Your task to perform on an android device: Open Google Maps and go to "Timeline" Image 0: 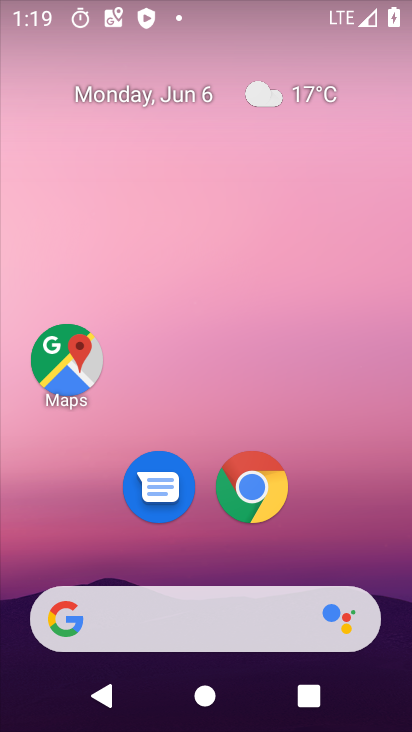
Step 0: click (84, 384)
Your task to perform on an android device: Open Google Maps and go to "Timeline" Image 1: 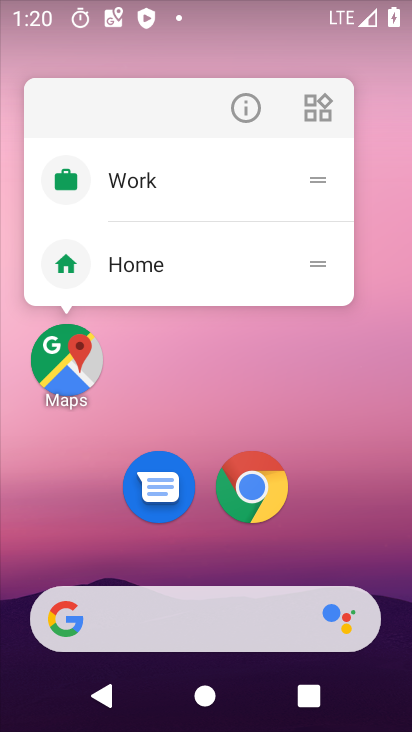
Step 1: click (56, 365)
Your task to perform on an android device: Open Google Maps and go to "Timeline" Image 2: 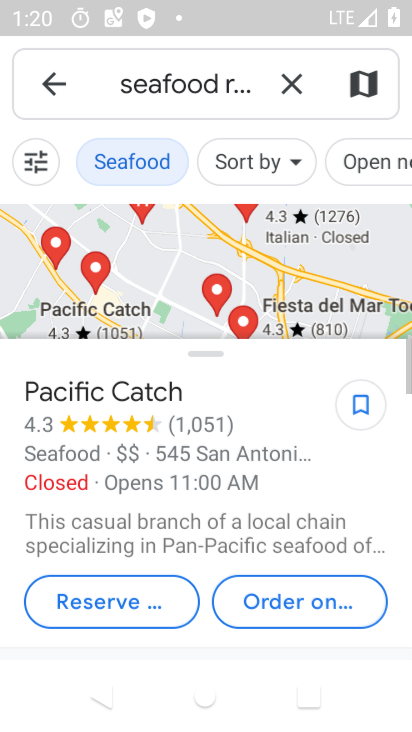
Step 2: click (52, 76)
Your task to perform on an android device: Open Google Maps and go to "Timeline" Image 3: 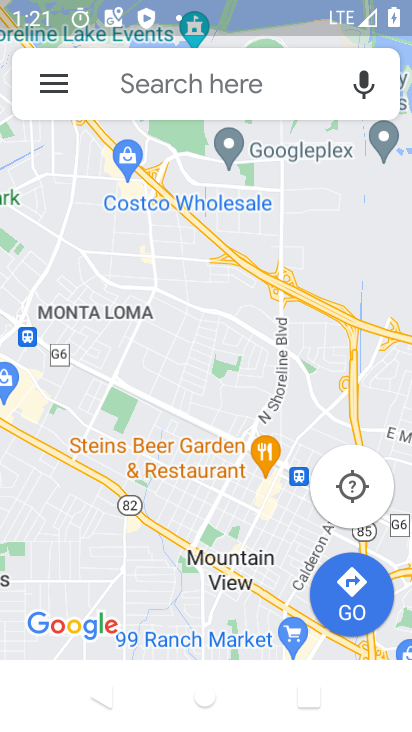
Step 3: click (53, 80)
Your task to perform on an android device: Open Google Maps and go to "Timeline" Image 4: 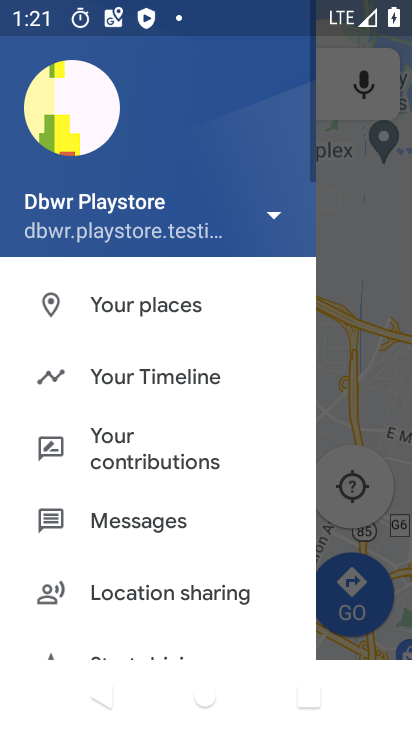
Step 4: click (189, 383)
Your task to perform on an android device: Open Google Maps and go to "Timeline" Image 5: 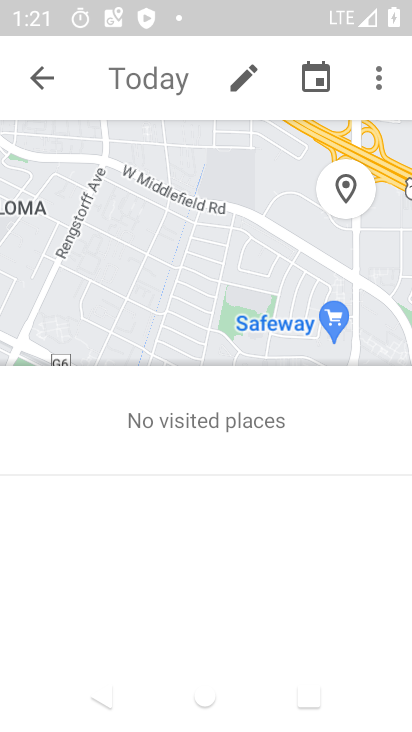
Step 5: task complete